Your task to perform on an android device: turn notification dots on Image 0: 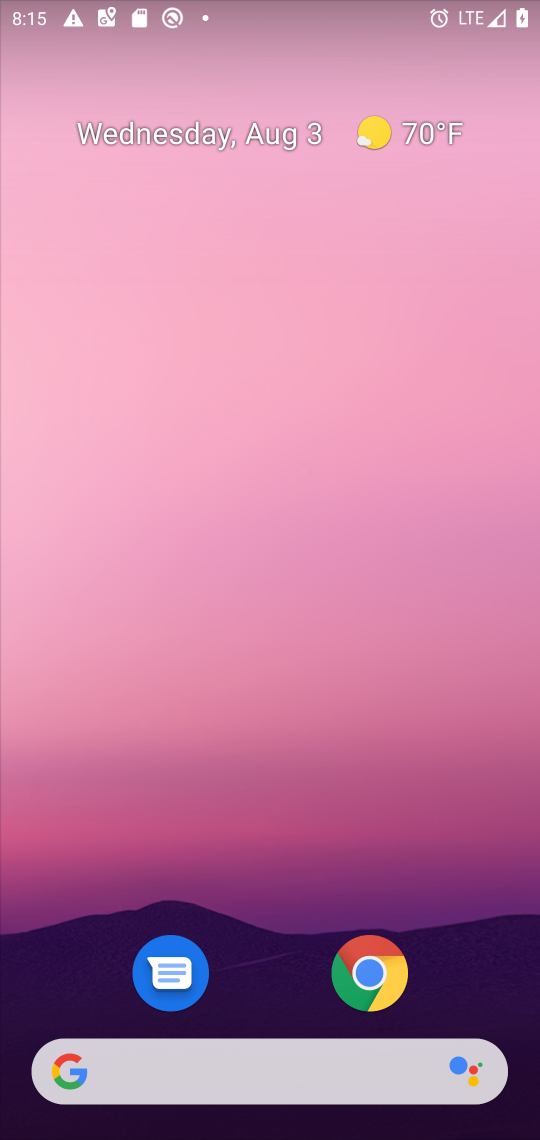
Step 0: press home button
Your task to perform on an android device: turn notification dots on Image 1: 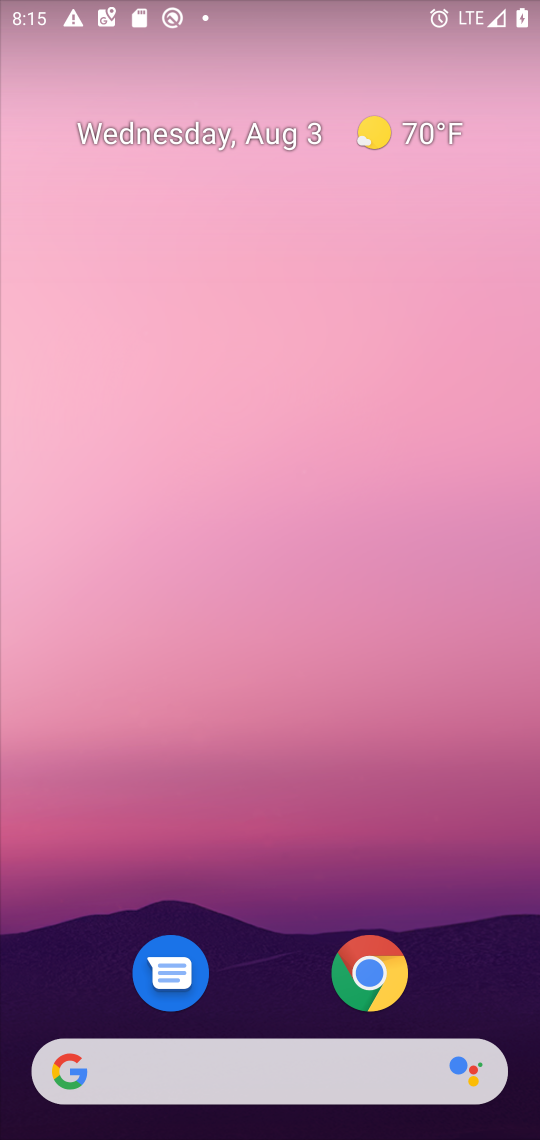
Step 1: press home button
Your task to perform on an android device: turn notification dots on Image 2: 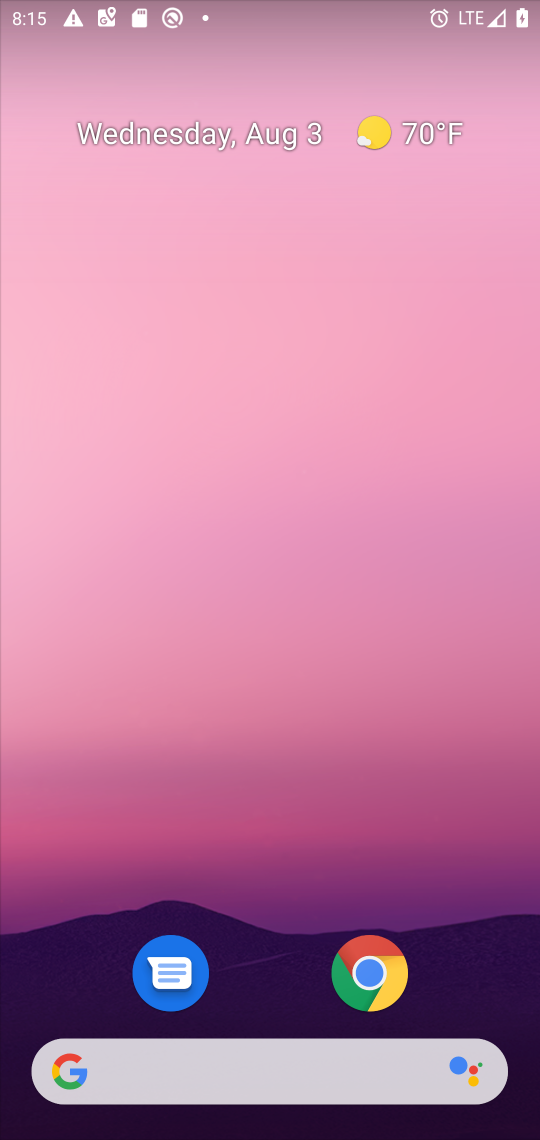
Step 2: drag from (301, 407) to (314, 62)
Your task to perform on an android device: turn notification dots on Image 3: 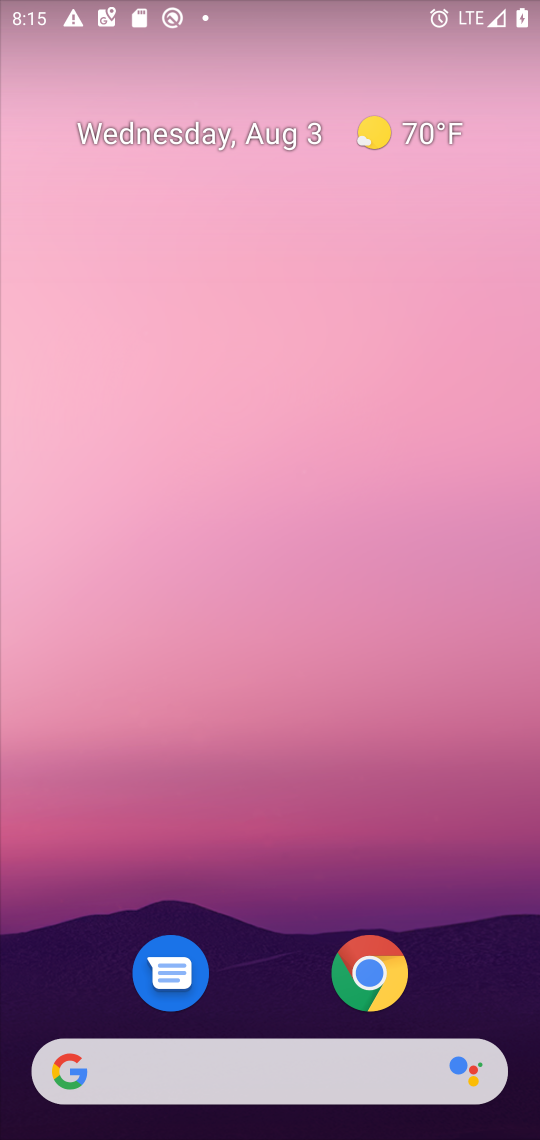
Step 3: drag from (248, 938) to (243, 17)
Your task to perform on an android device: turn notification dots on Image 4: 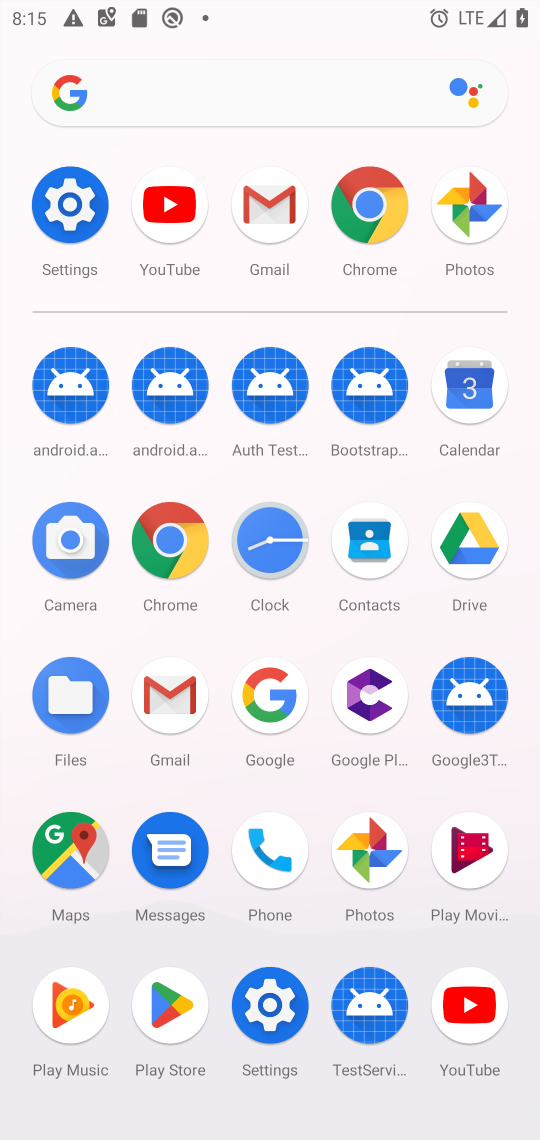
Step 4: click (72, 192)
Your task to perform on an android device: turn notification dots on Image 5: 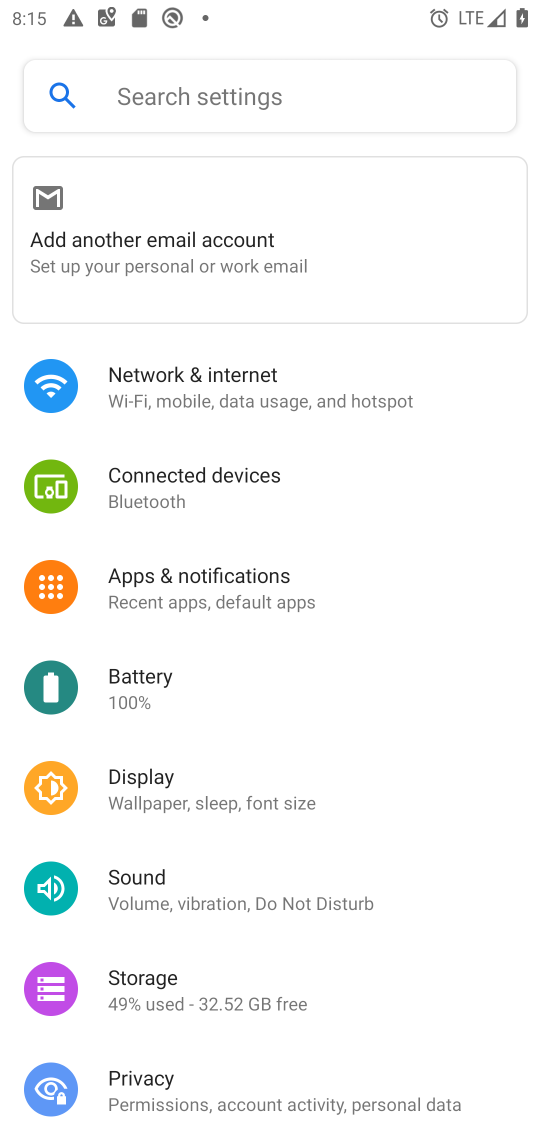
Step 5: click (261, 591)
Your task to perform on an android device: turn notification dots on Image 6: 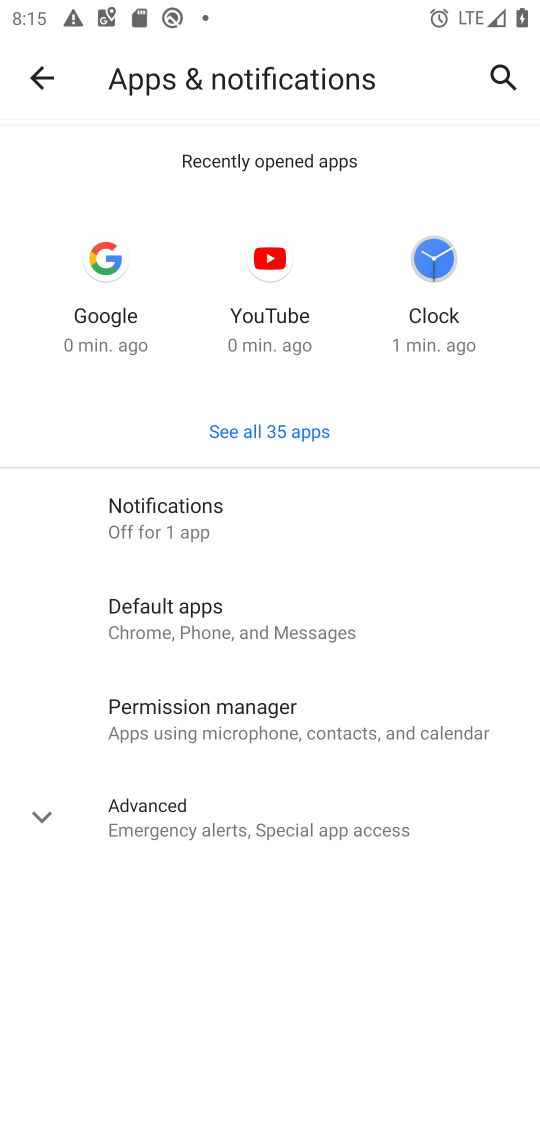
Step 6: click (249, 511)
Your task to perform on an android device: turn notification dots on Image 7: 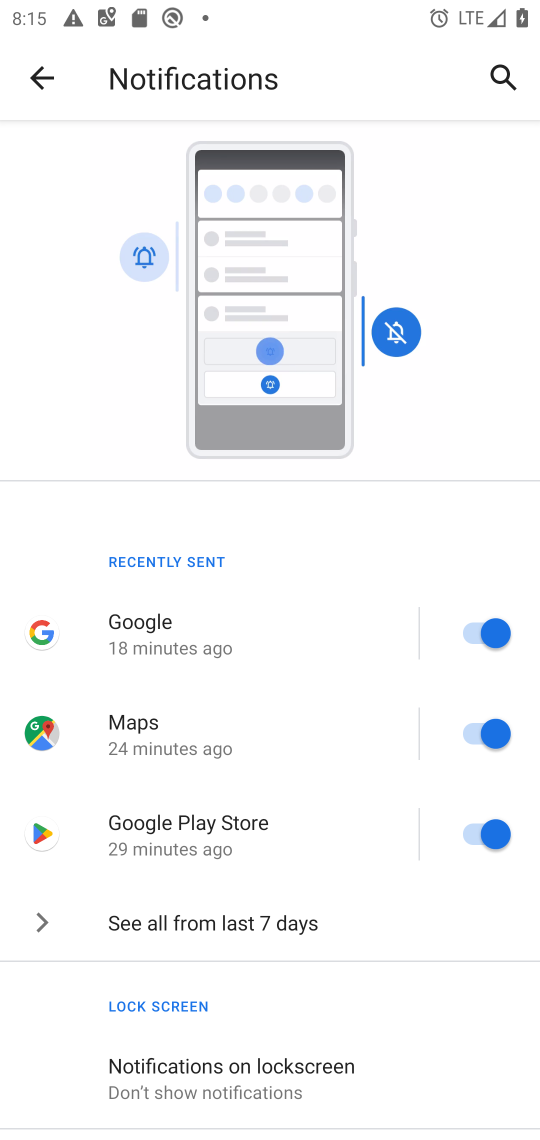
Step 7: drag from (296, 994) to (284, 215)
Your task to perform on an android device: turn notification dots on Image 8: 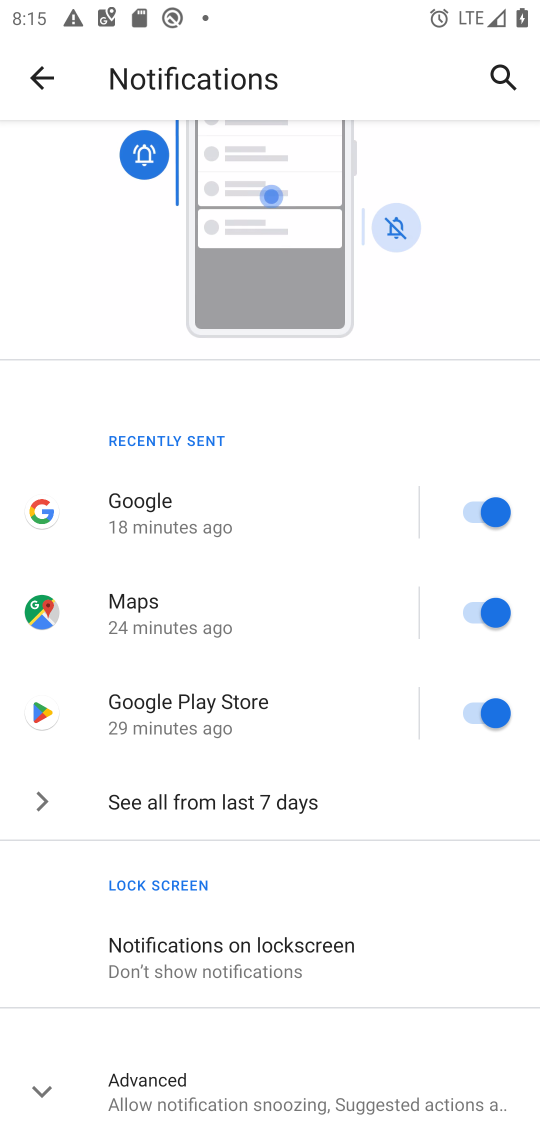
Step 8: click (62, 1083)
Your task to perform on an android device: turn notification dots on Image 9: 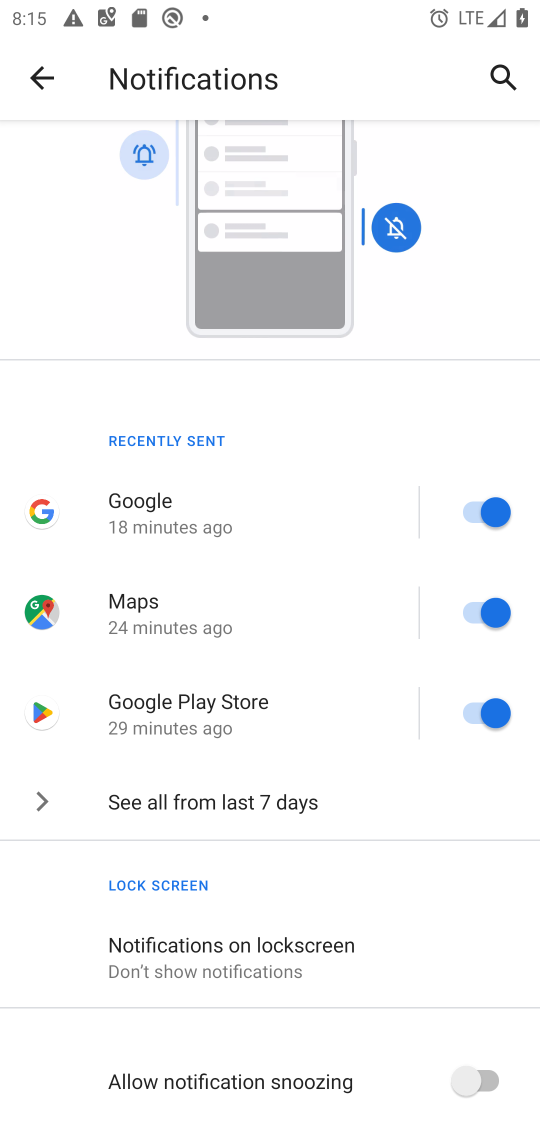
Step 9: drag from (304, 1049) to (319, 132)
Your task to perform on an android device: turn notification dots on Image 10: 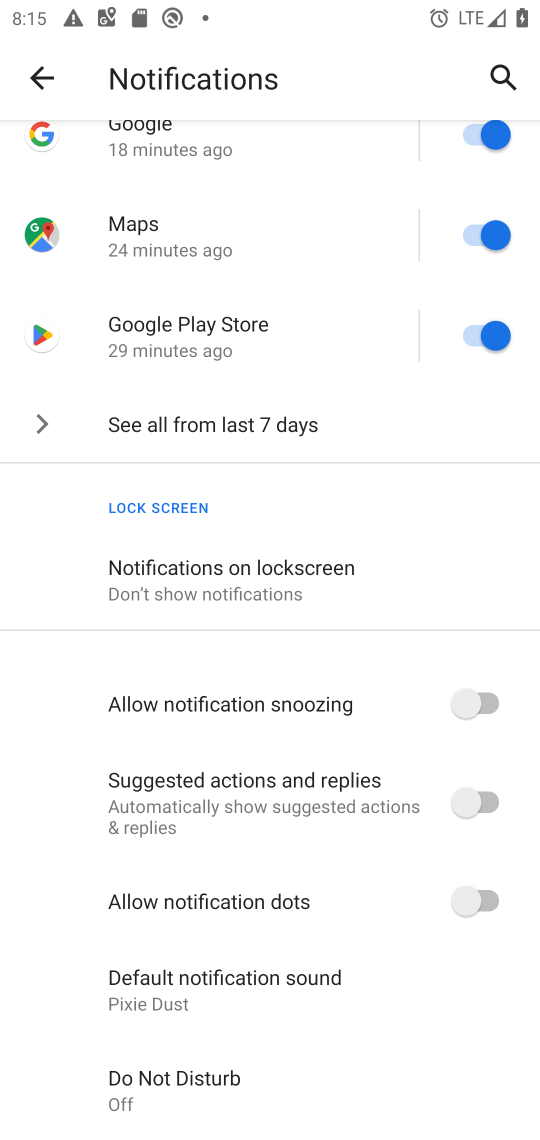
Step 10: click (476, 890)
Your task to perform on an android device: turn notification dots on Image 11: 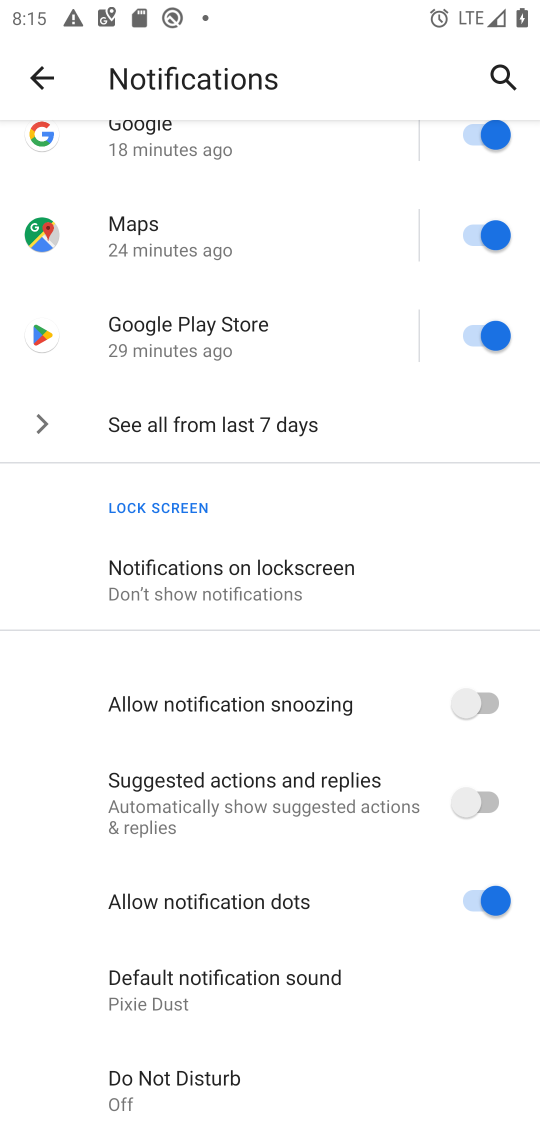
Step 11: task complete